Your task to perform on an android device: open chrome privacy settings Image 0: 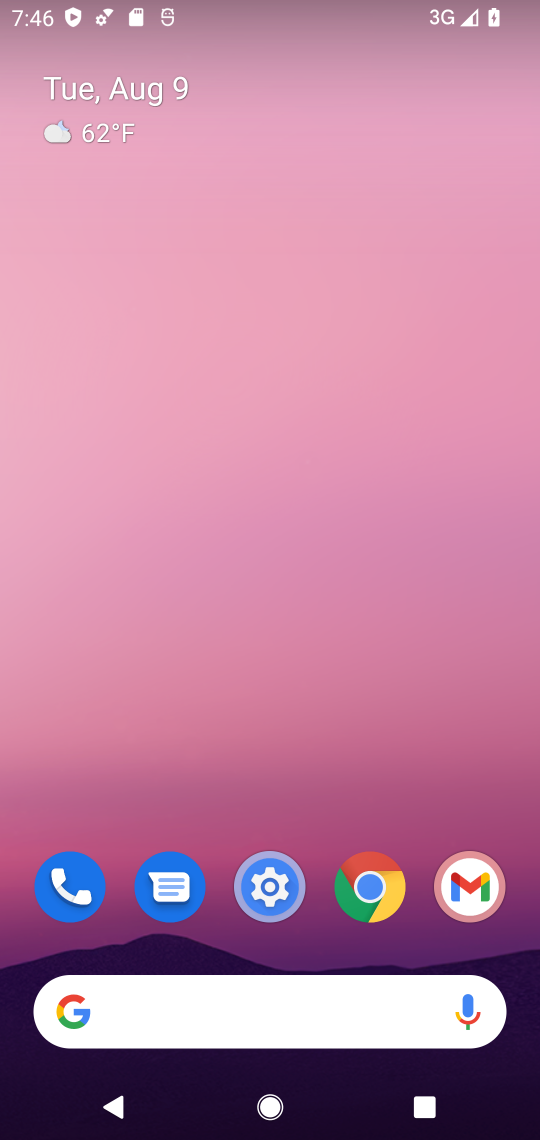
Step 0: click (372, 893)
Your task to perform on an android device: open chrome privacy settings Image 1: 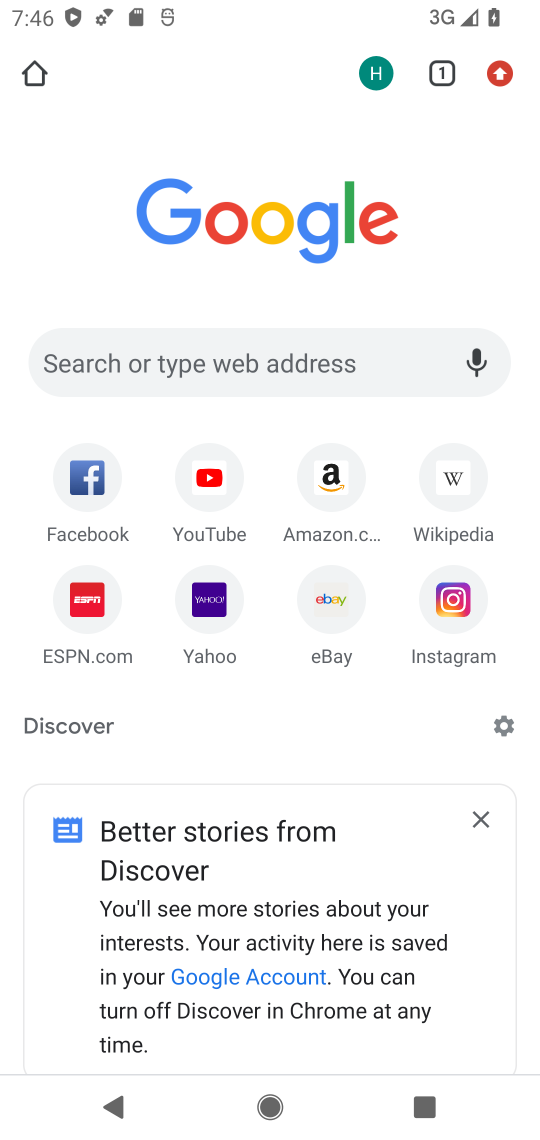
Step 1: click (490, 80)
Your task to perform on an android device: open chrome privacy settings Image 2: 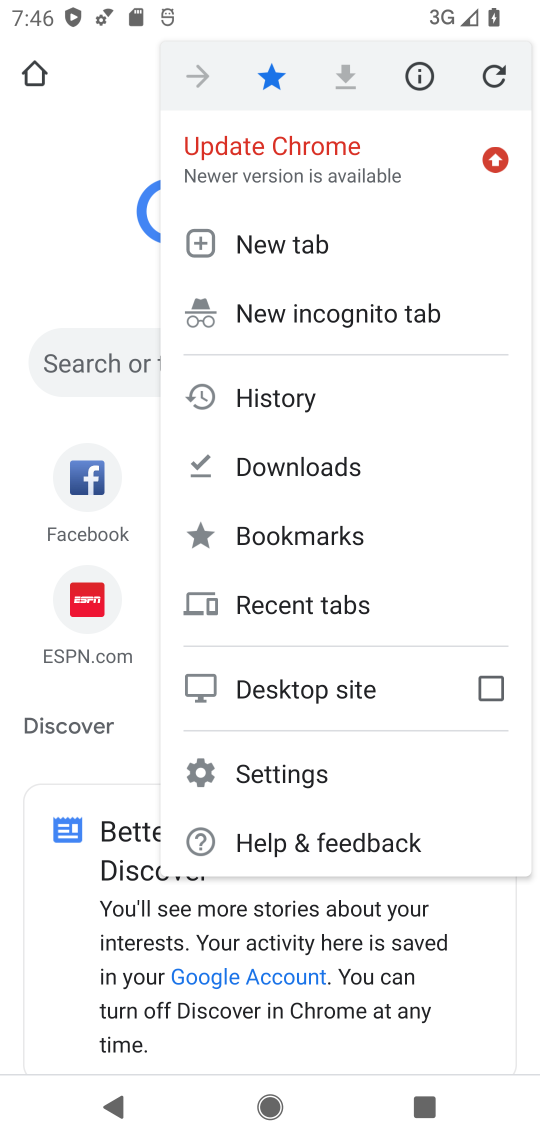
Step 2: click (310, 769)
Your task to perform on an android device: open chrome privacy settings Image 3: 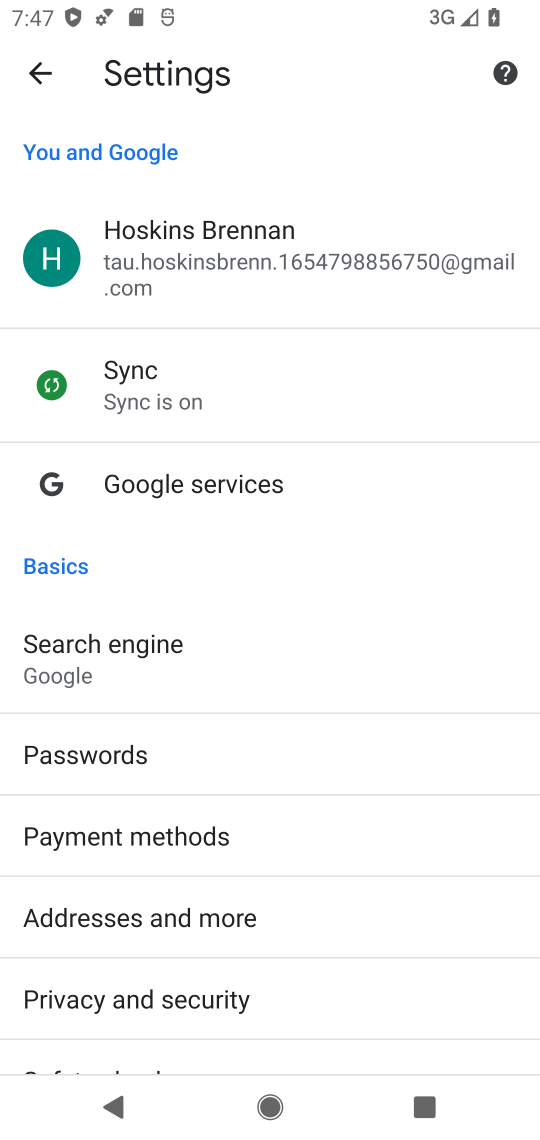
Step 3: click (230, 996)
Your task to perform on an android device: open chrome privacy settings Image 4: 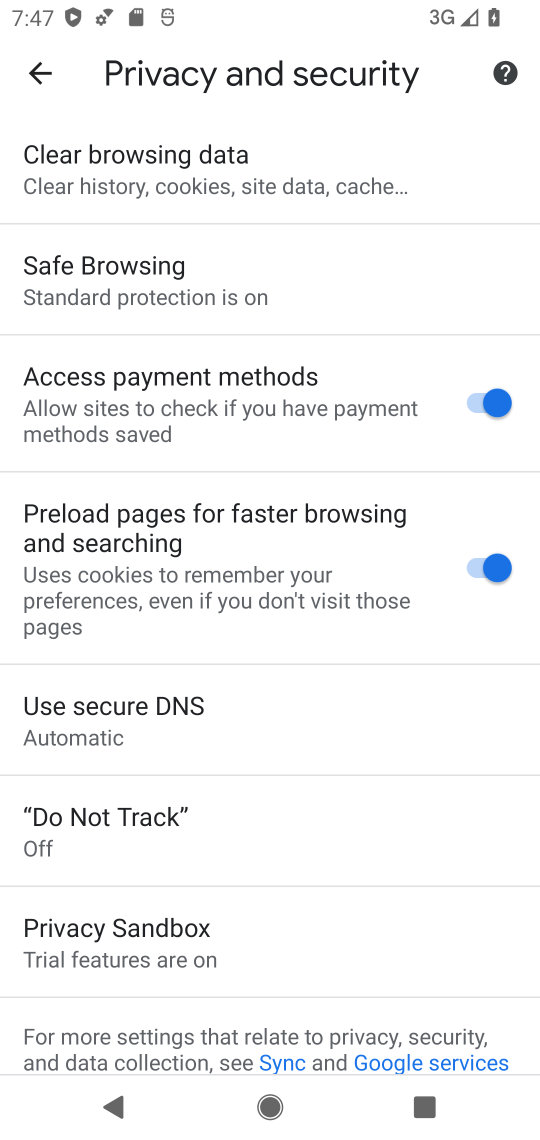
Step 4: task complete